Your task to perform on an android device: find snoozed emails in the gmail app Image 0: 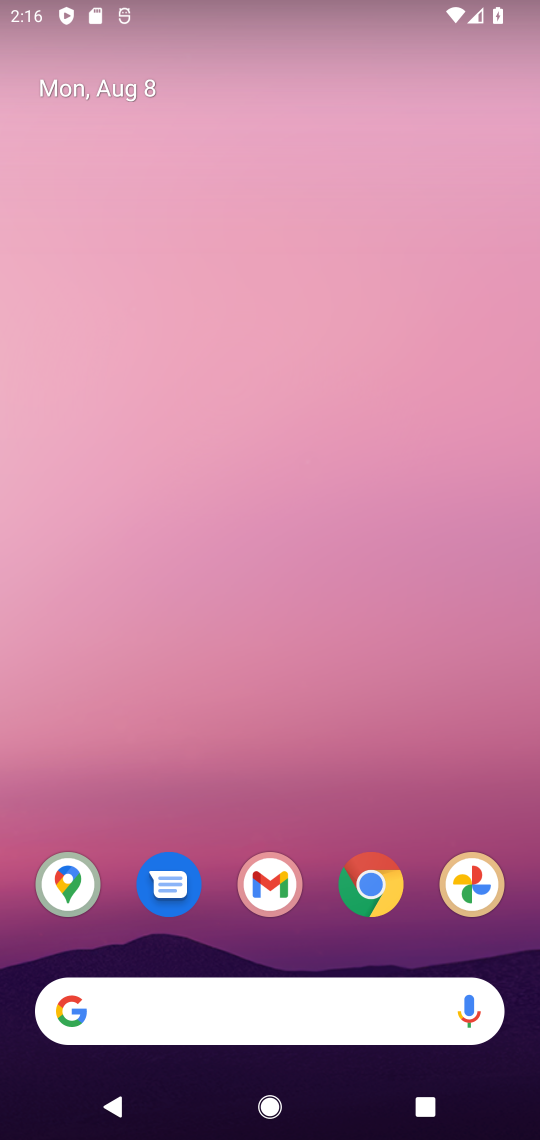
Step 0: click (275, 898)
Your task to perform on an android device: find snoozed emails in the gmail app Image 1: 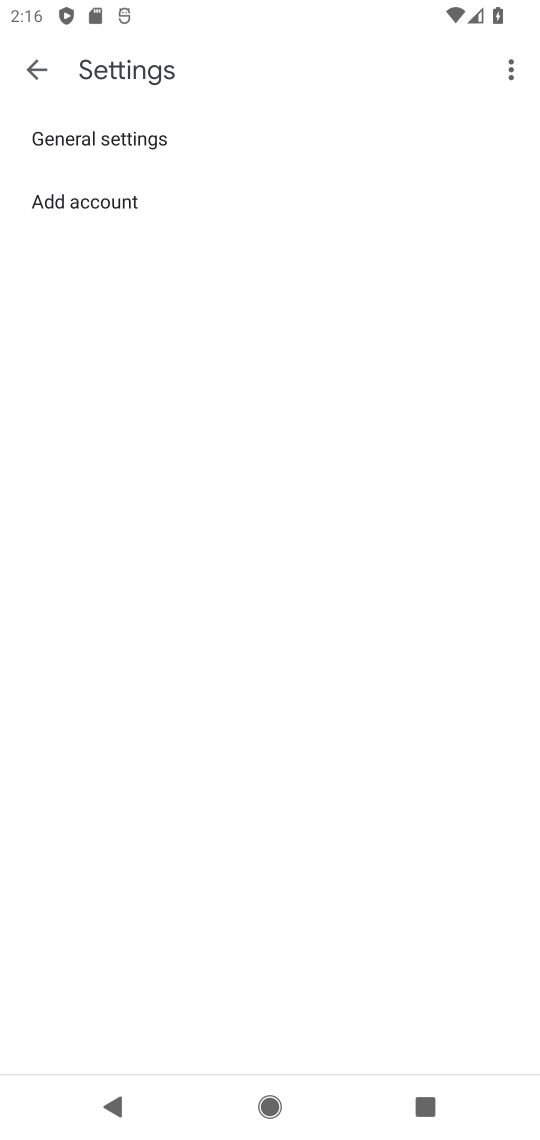
Step 1: click (30, 73)
Your task to perform on an android device: find snoozed emails in the gmail app Image 2: 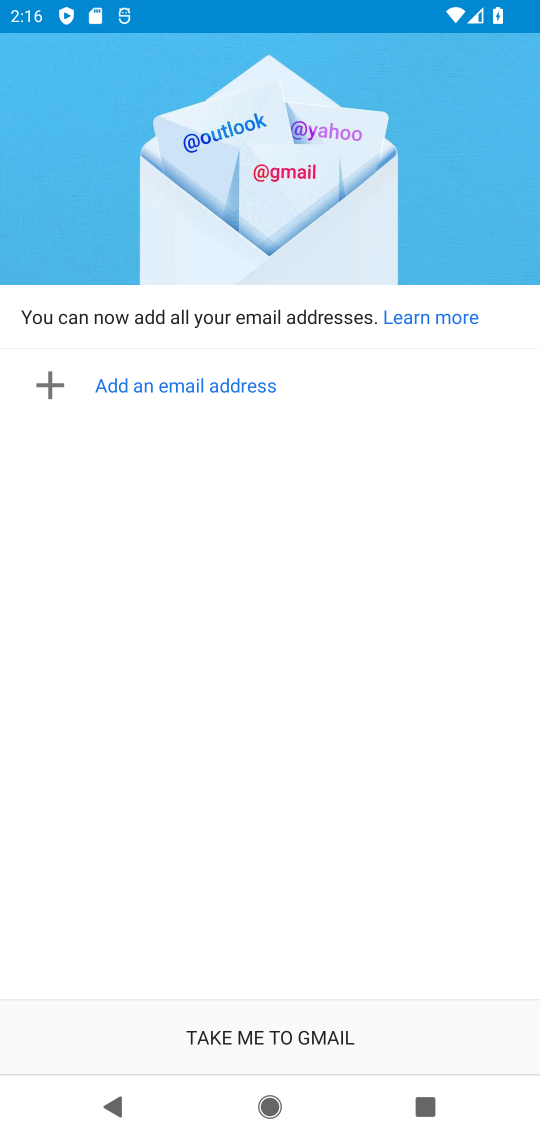
Step 2: click (280, 1022)
Your task to perform on an android device: find snoozed emails in the gmail app Image 3: 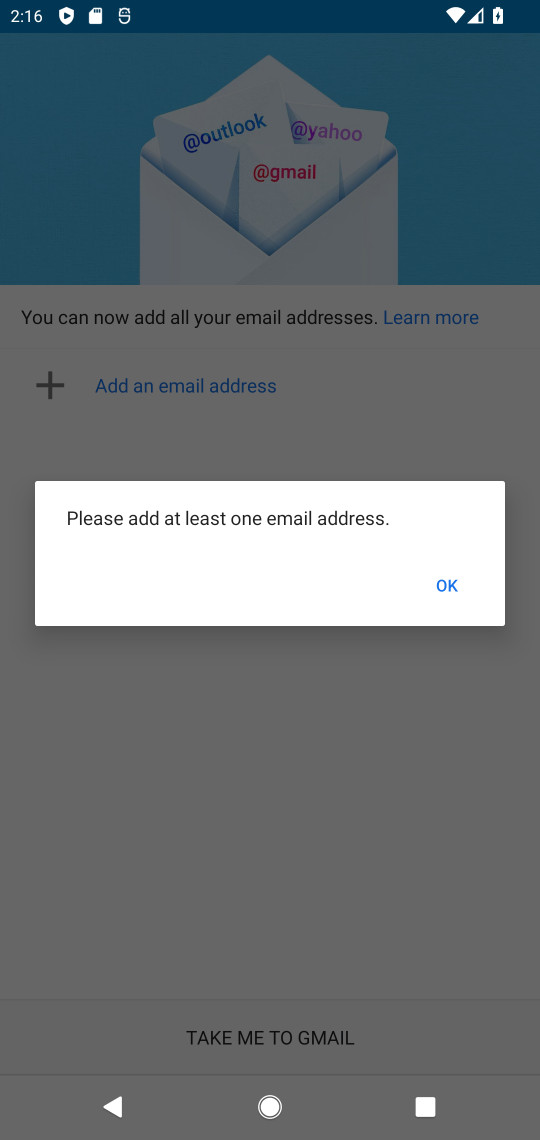
Step 3: click (444, 570)
Your task to perform on an android device: find snoozed emails in the gmail app Image 4: 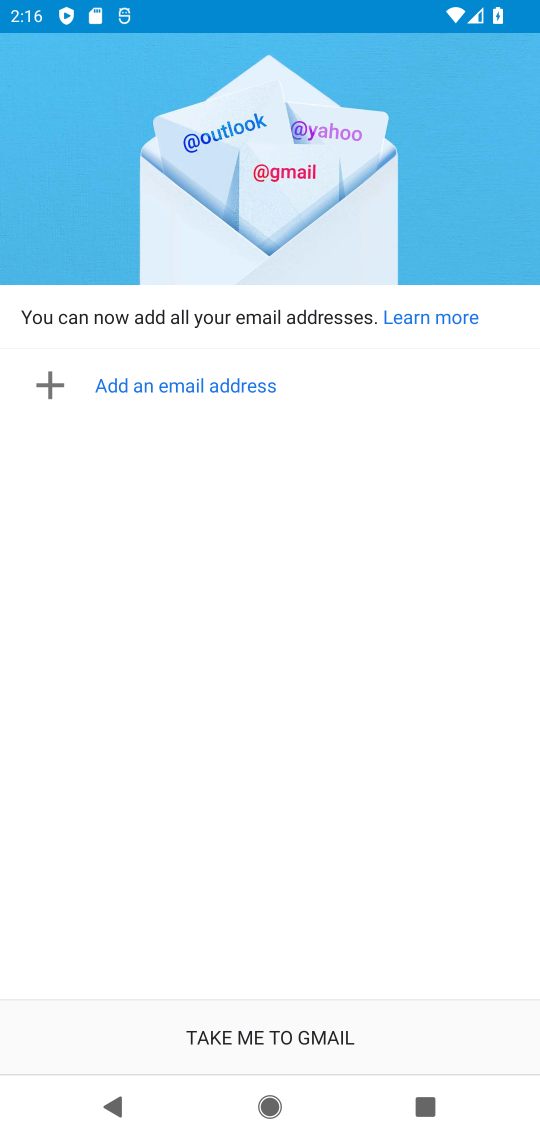
Step 4: task complete